Your task to perform on an android device: Open Yahoo.com Image 0: 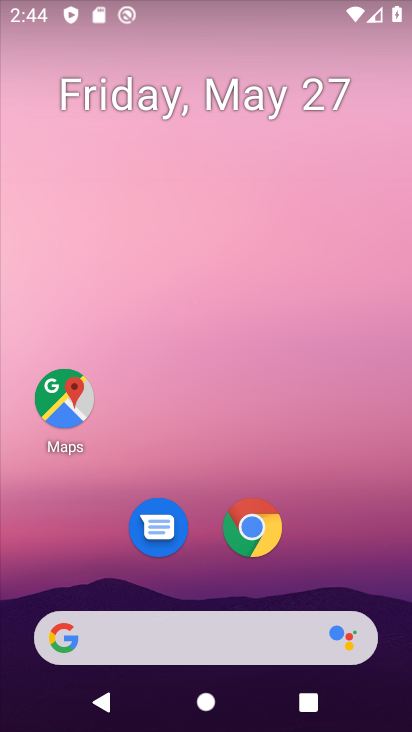
Step 0: click (190, 645)
Your task to perform on an android device: Open Yahoo.com Image 1: 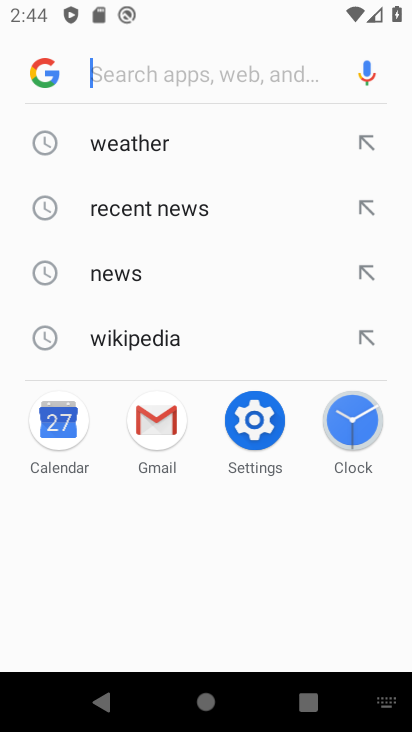
Step 1: type "yahoo.com"
Your task to perform on an android device: Open Yahoo.com Image 2: 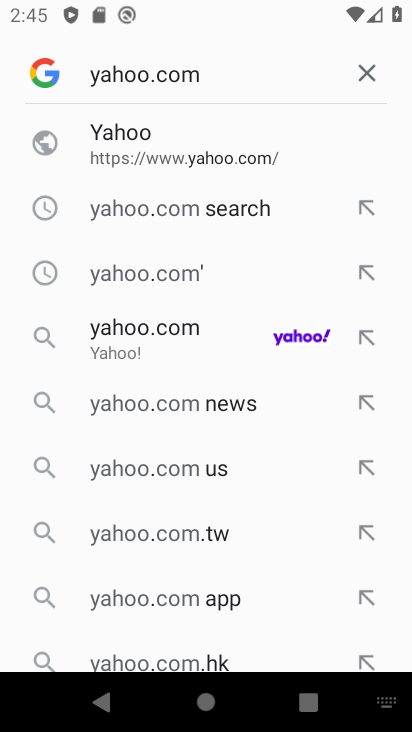
Step 2: click (210, 125)
Your task to perform on an android device: Open Yahoo.com Image 3: 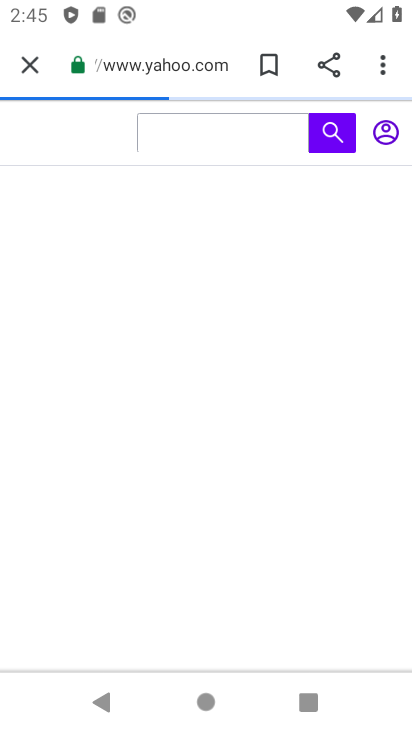
Step 3: task complete